Your task to perform on an android device: Go to Reddit.com Image 0: 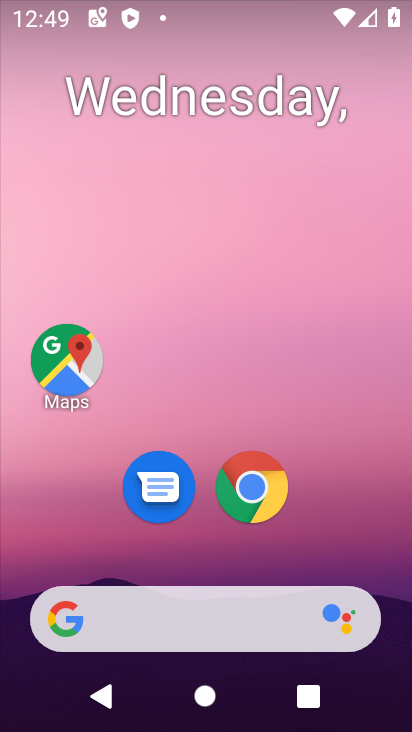
Step 0: click (248, 477)
Your task to perform on an android device: Go to Reddit.com Image 1: 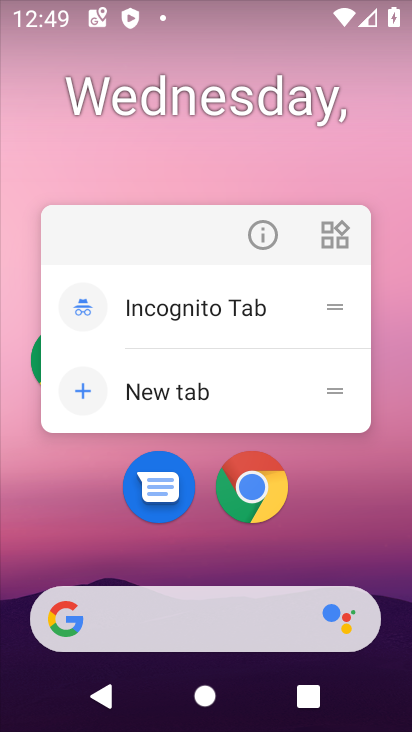
Step 1: click (250, 494)
Your task to perform on an android device: Go to Reddit.com Image 2: 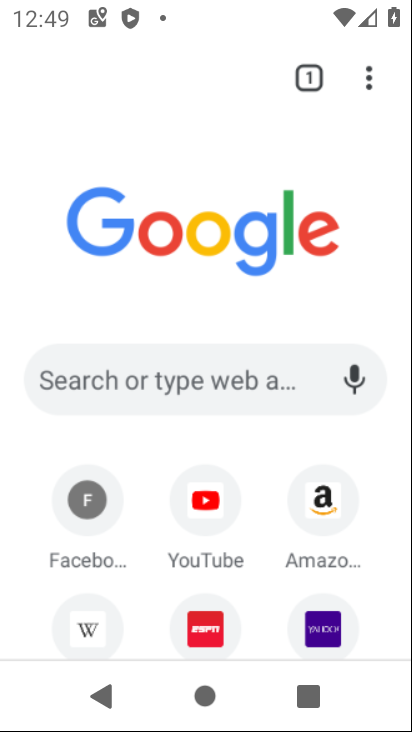
Step 2: click (123, 378)
Your task to perform on an android device: Go to Reddit.com Image 3: 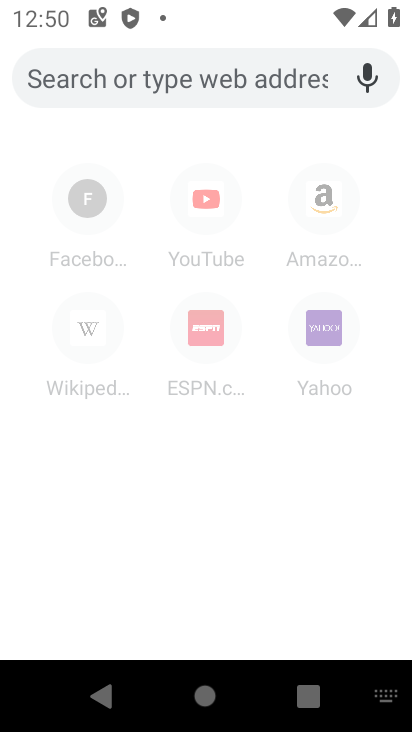
Step 3: type "reddit.com"
Your task to perform on an android device: Go to Reddit.com Image 4: 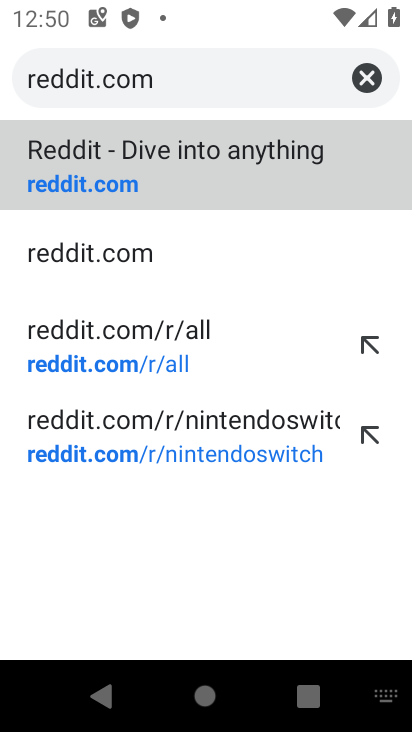
Step 4: click (217, 172)
Your task to perform on an android device: Go to Reddit.com Image 5: 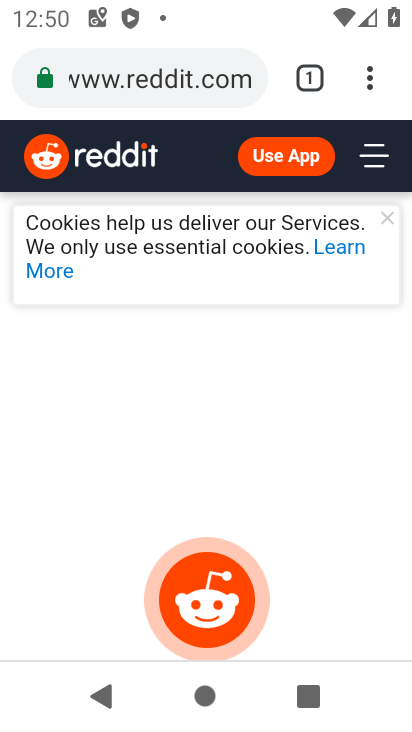
Step 5: task complete